Your task to perform on an android device: Open calendar and show me the second week of next month Image 0: 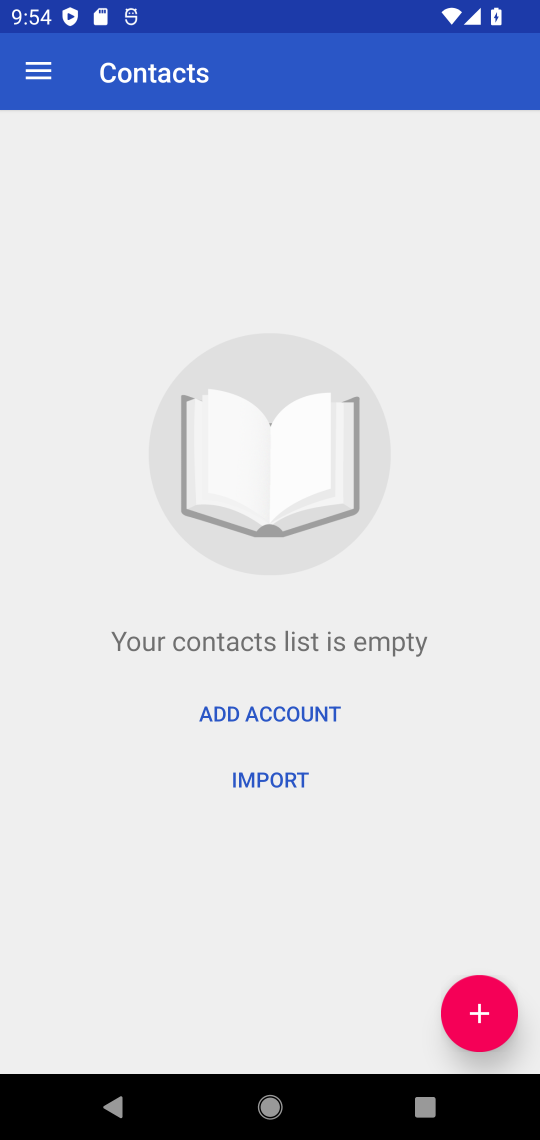
Step 0: press home button
Your task to perform on an android device: Open calendar and show me the second week of next month Image 1: 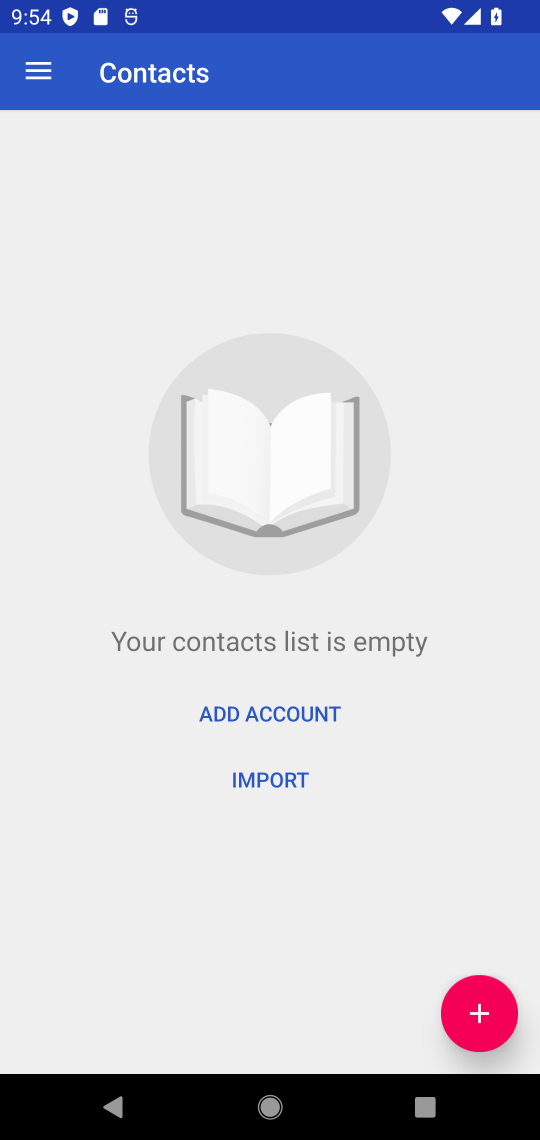
Step 1: press home button
Your task to perform on an android device: Open calendar and show me the second week of next month Image 2: 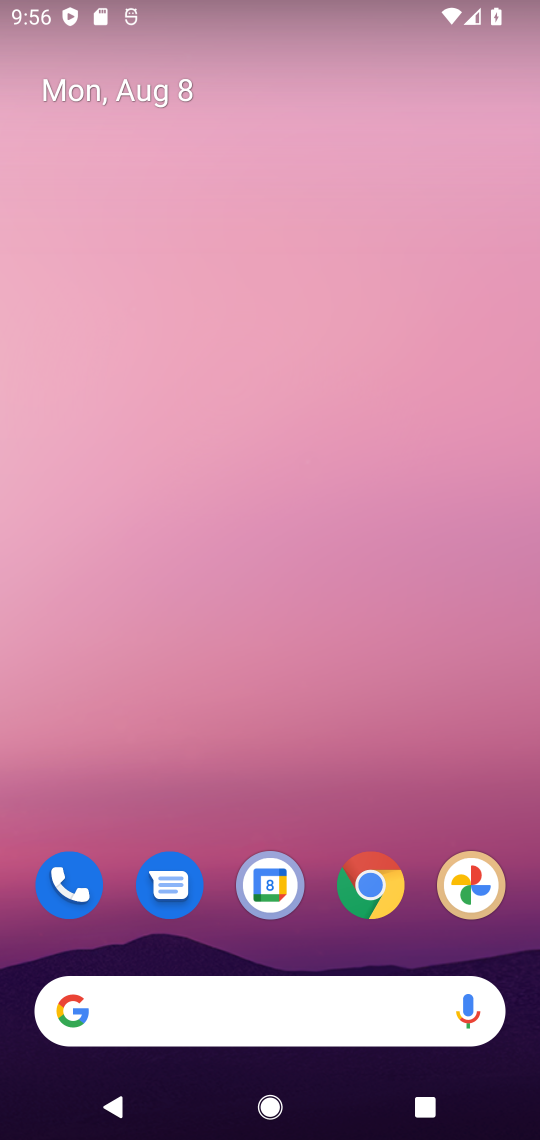
Step 2: click (265, 899)
Your task to perform on an android device: Open calendar and show me the second week of next month Image 3: 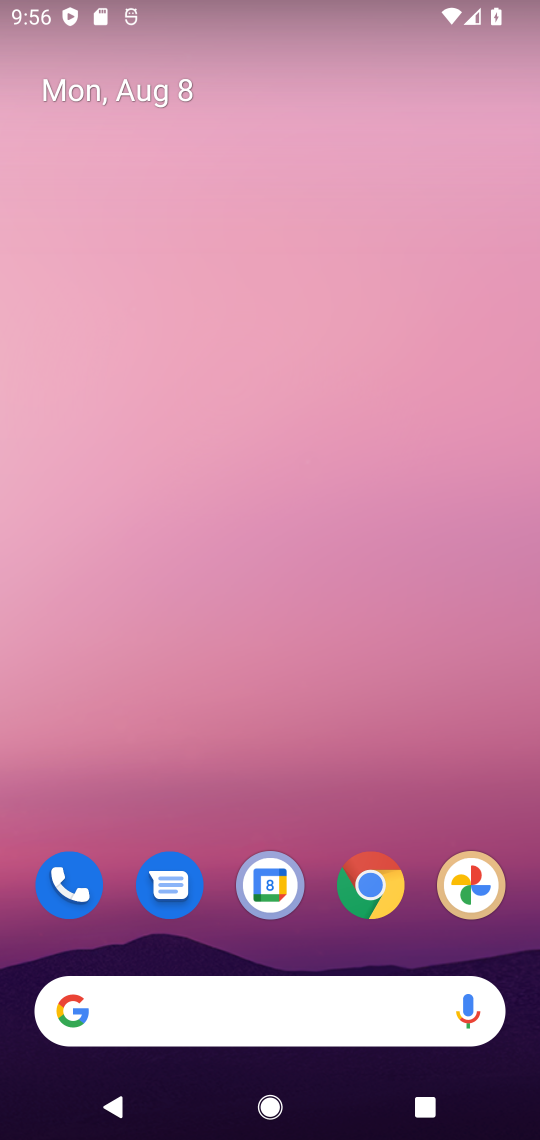
Step 3: click (273, 865)
Your task to perform on an android device: Open calendar and show me the second week of next month Image 4: 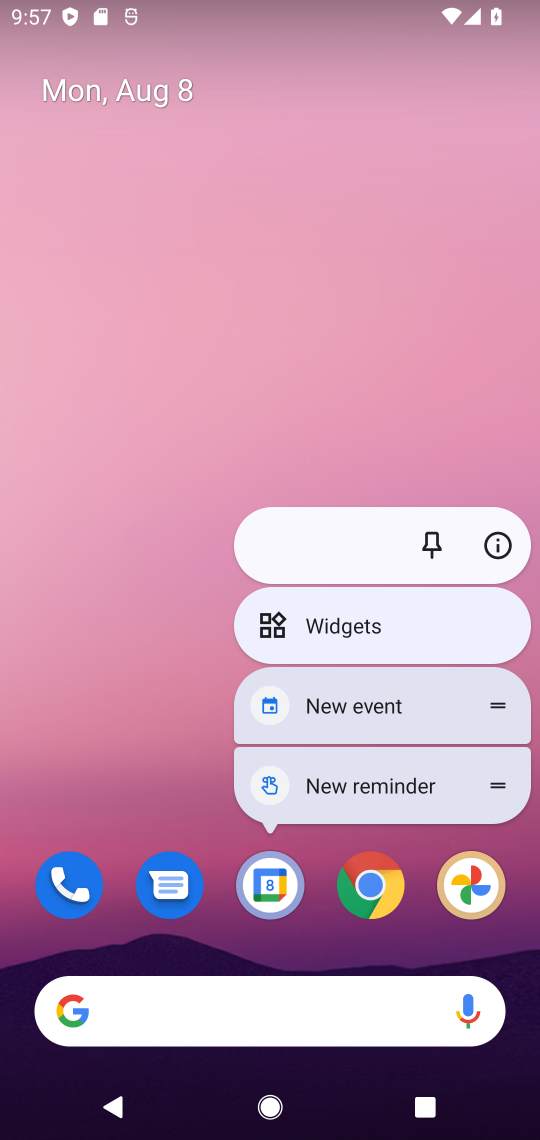
Step 4: click (274, 879)
Your task to perform on an android device: Open calendar and show me the second week of next month Image 5: 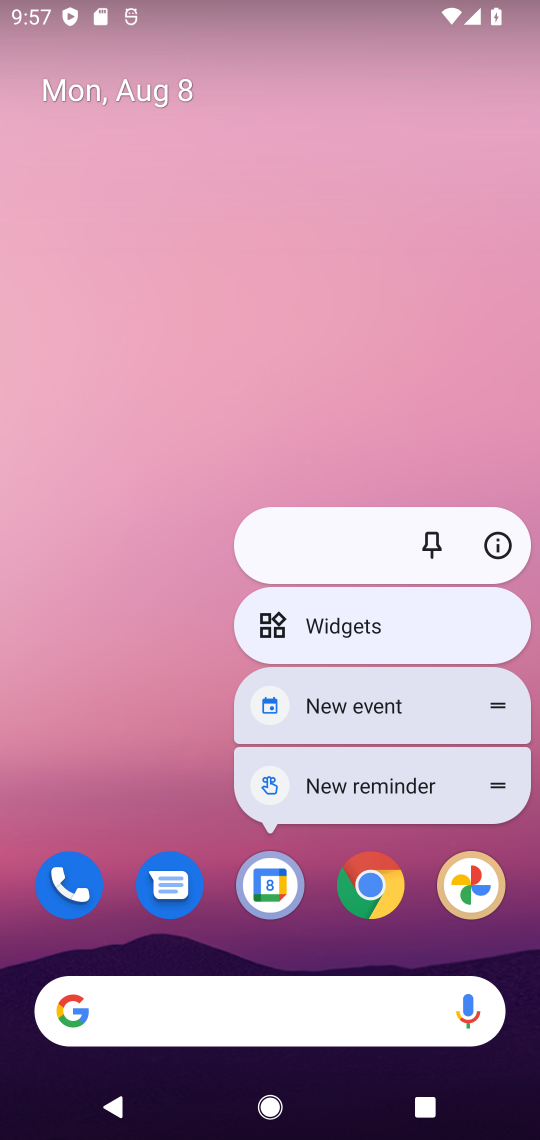
Step 5: click (274, 879)
Your task to perform on an android device: Open calendar and show me the second week of next month Image 6: 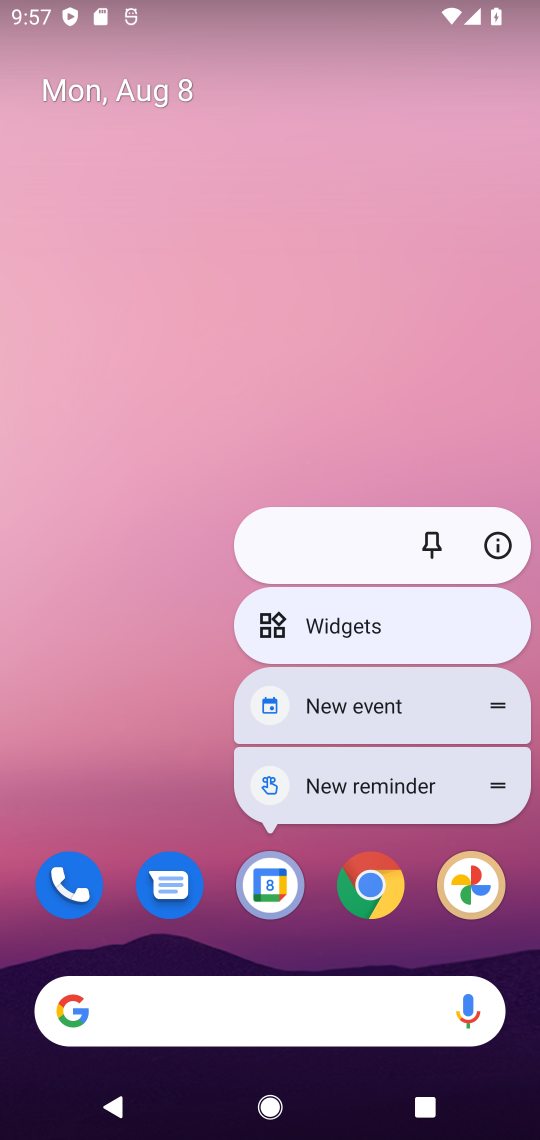
Step 6: click (274, 879)
Your task to perform on an android device: Open calendar and show me the second week of next month Image 7: 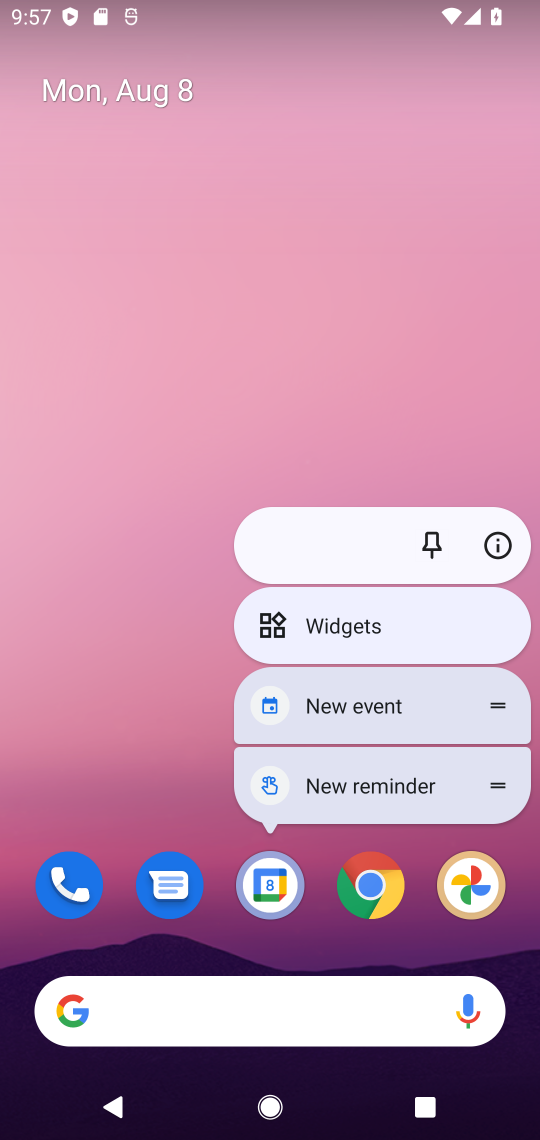
Step 7: click (274, 879)
Your task to perform on an android device: Open calendar and show me the second week of next month Image 8: 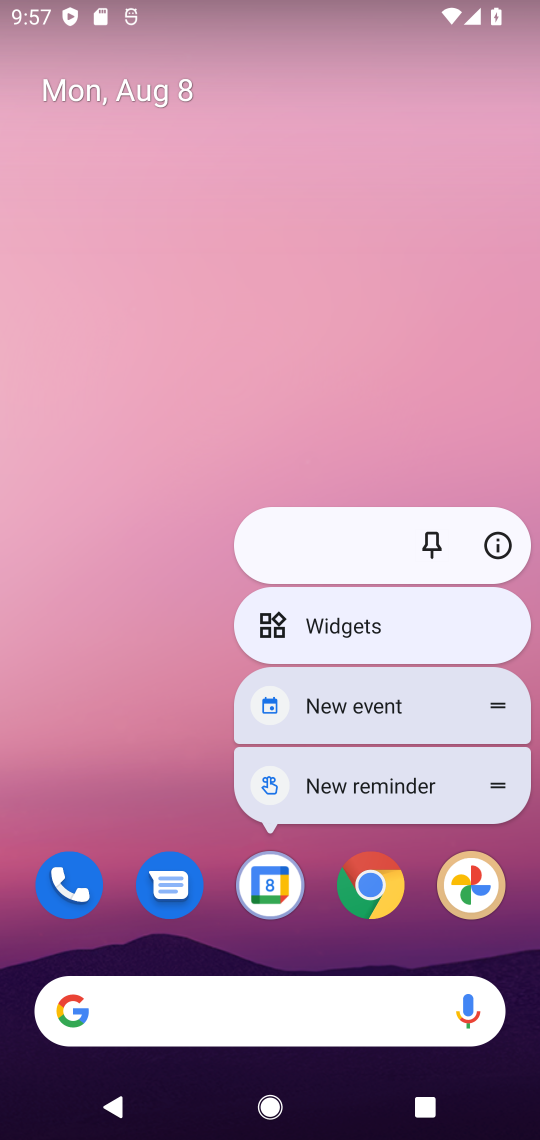
Step 8: click (274, 879)
Your task to perform on an android device: Open calendar and show me the second week of next month Image 9: 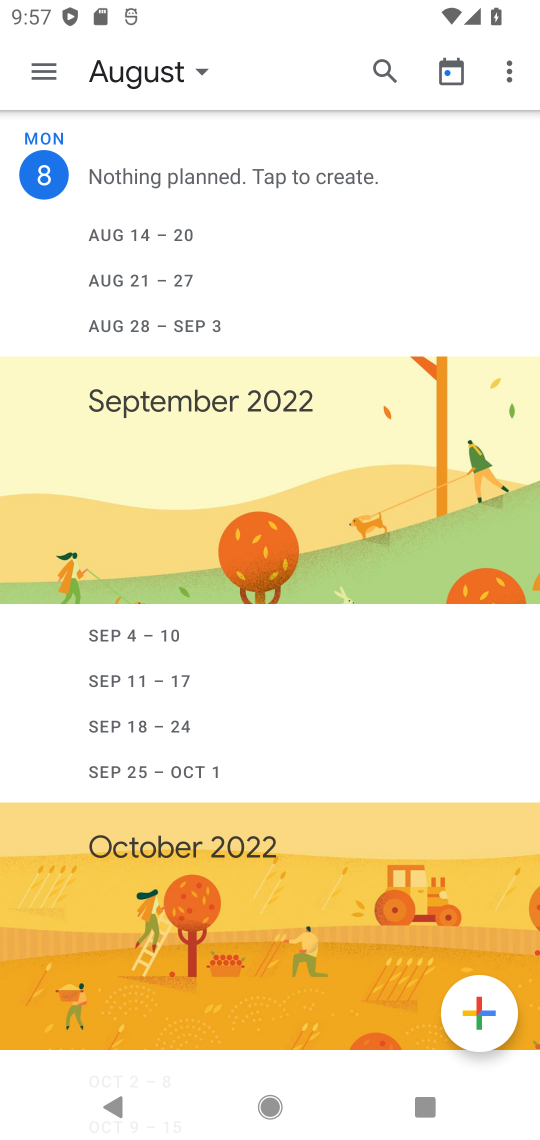
Step 9: click (140, 67)
Your task to perform on an android device: Open calendar and show me the second week of next month Image 10: 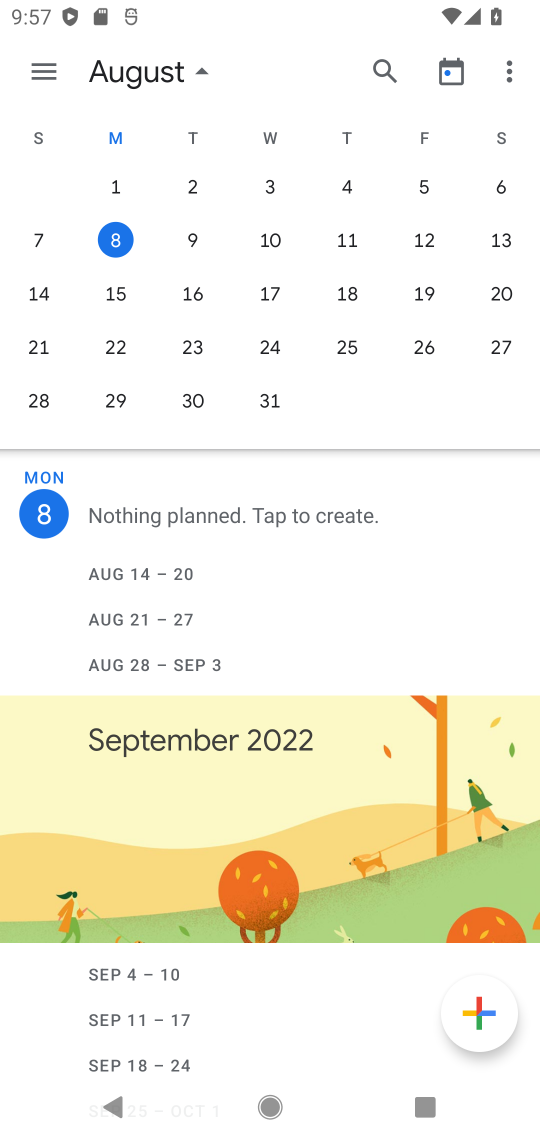
Step 10: click (54, 255)
Your task to perform on an android device: Open calendar and show me the second week of next month Image 11: 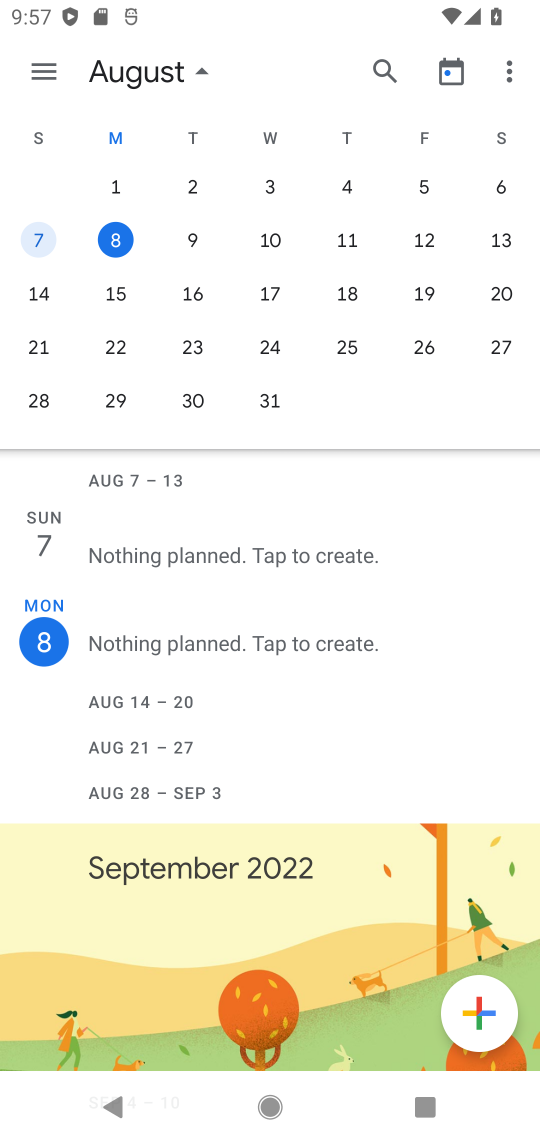
Step 11: drag from (487, 239) to (90, 264)
Your task to perform on an android device: Open calendar and show me the second week of next month Image 12: 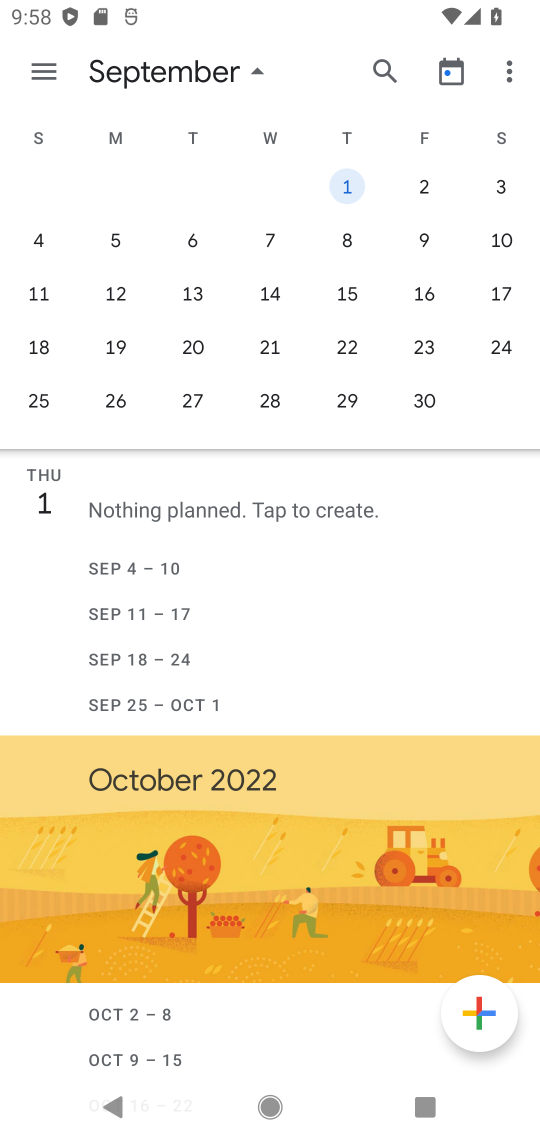
Step 12: click (44, 248)
Your task to perform on an android device: Open calendar and show me the second week of next month Image 13: 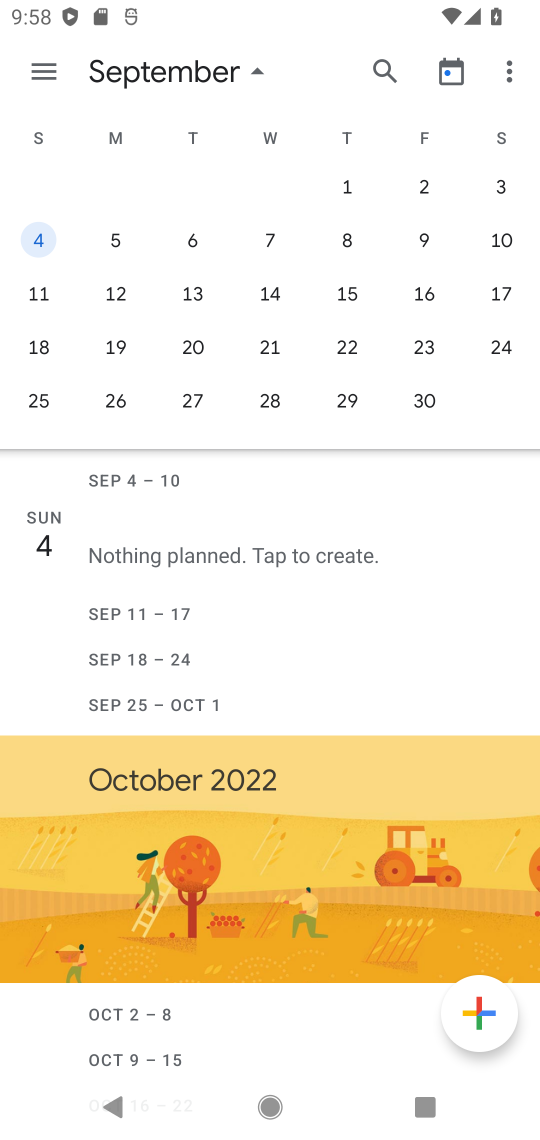
Step 13: task complete